Your task to perform on an android device: turn on notifications settings in the gmail app Image 0: 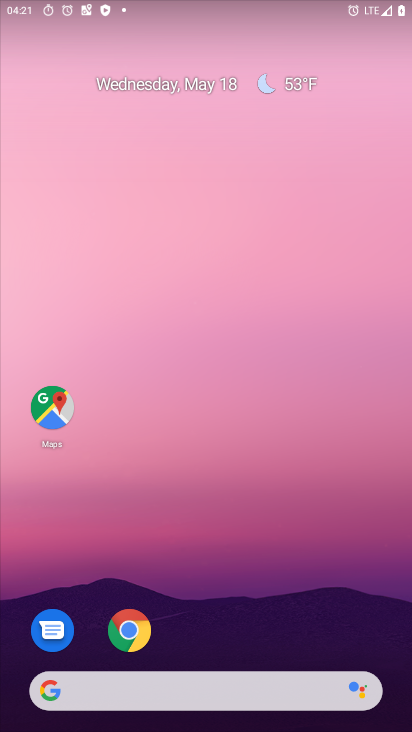
Step 0: drag from (196, 723) to (213, 179)
Your task to perform on an android device: turn on notifications settings in the gmail app Image 1: 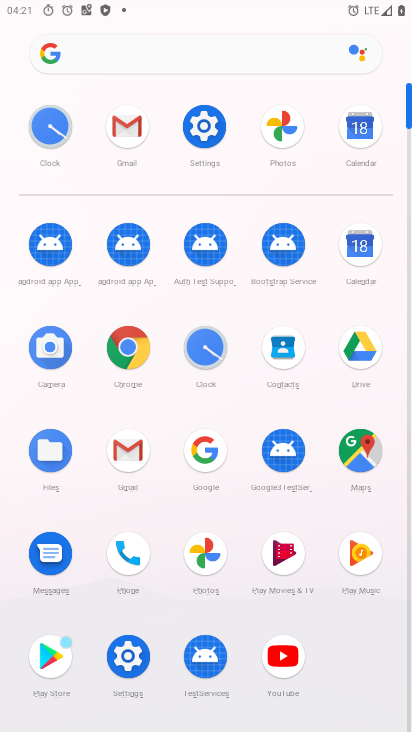
Step 1: drag from (130, 446) to (161, 415)
Your task to perform on an android device: turn on notifications settings in the gmail app Image 2: 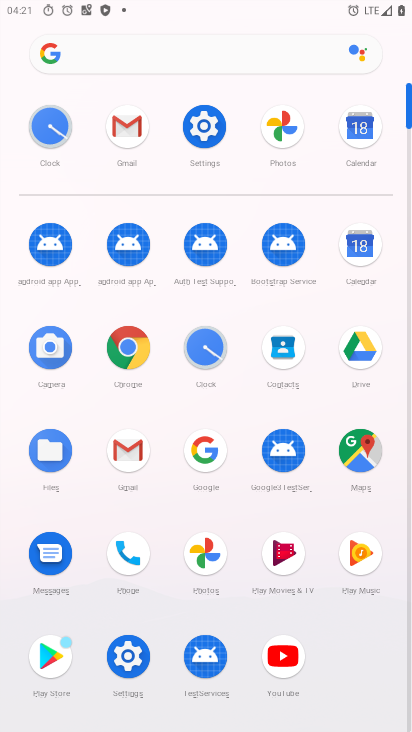
Step 2: click (128, 450)
Your task to perform on an android device: turn on notifications settings in the gmail app Image 3: 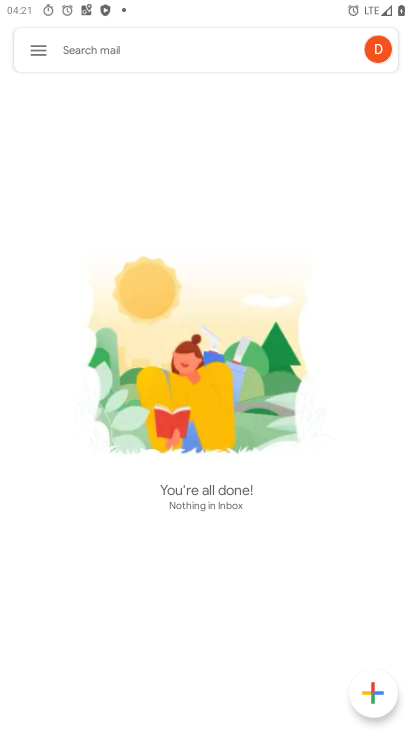
Step 3: click (36, 51)
Your task to perform on an android device: turn on notifications settings in the gmail app Image 4: 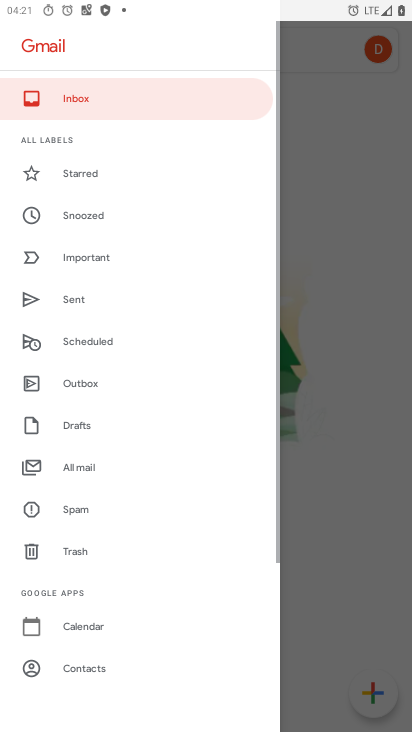
Step 4: drag from (84, 647) to (79, 311)
Your task to perform on an android device: turn on notifications settings in the gmail app Image 5: 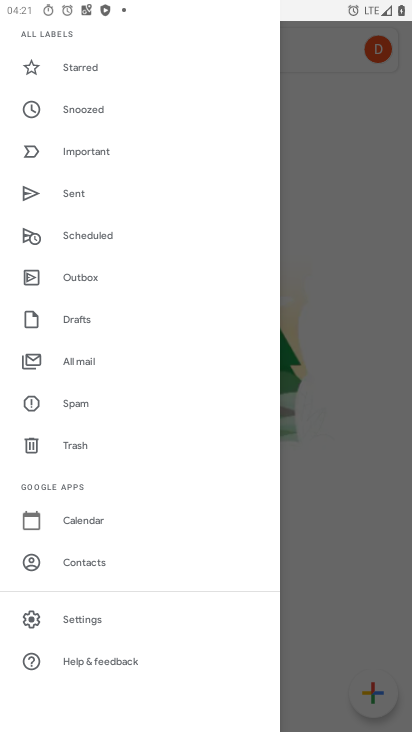
Step 5: click (75, 613)
Your task to perform on an android device: turn on notifications settings in the gmail app Image 6: 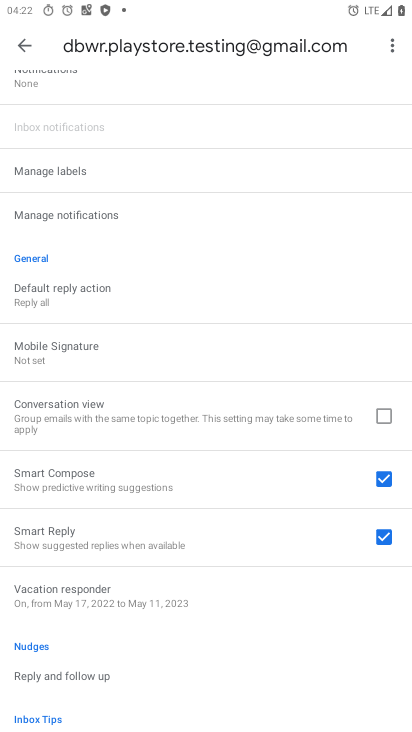
Step 6: drag from (141, 157) to (144, 398)
Your task to perform on an android device: turn on notifications settings in the gmail app Image 7: 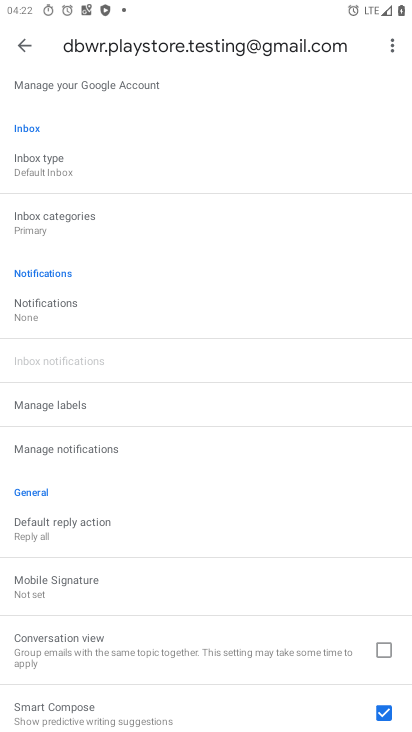
Step 7: click (31, 307)
Your task to perform on an android device: turn on notifications settings in the gmail app Image 8: 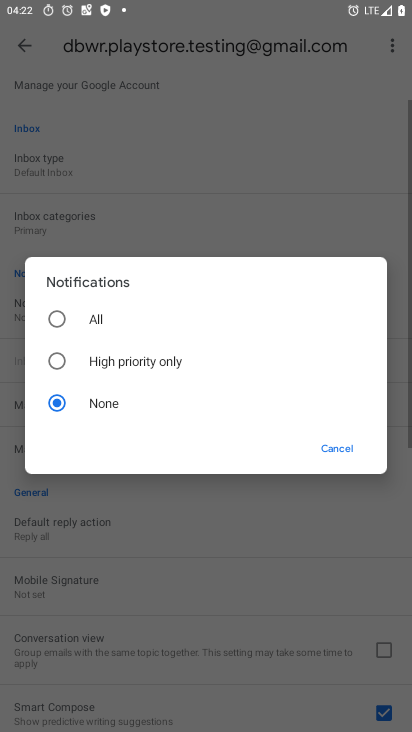
Step 8: click (55, 316)
Your task to perform on an android device: turn on notifications settings in the gmail app Image 9: 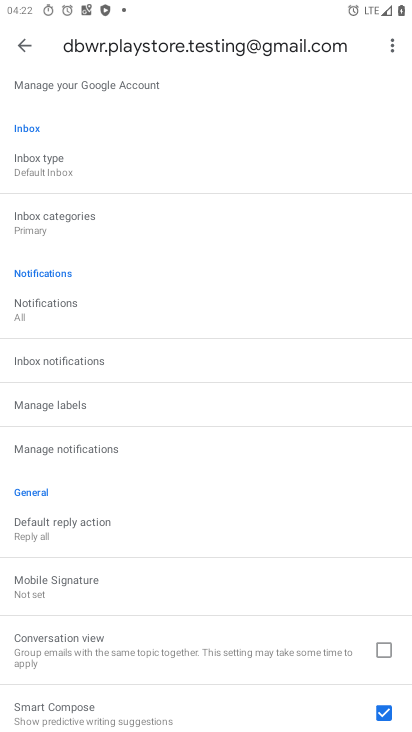
Step 9: task complete